Your task to perform on an android device: Go to Google Image 0: 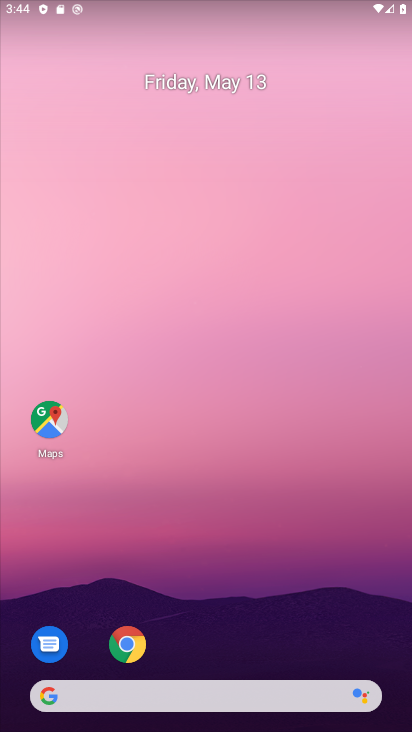
Step 0: drag from (290, 564) to (139, 0)
Your task to perform on an android device: Go to Google Image 1: 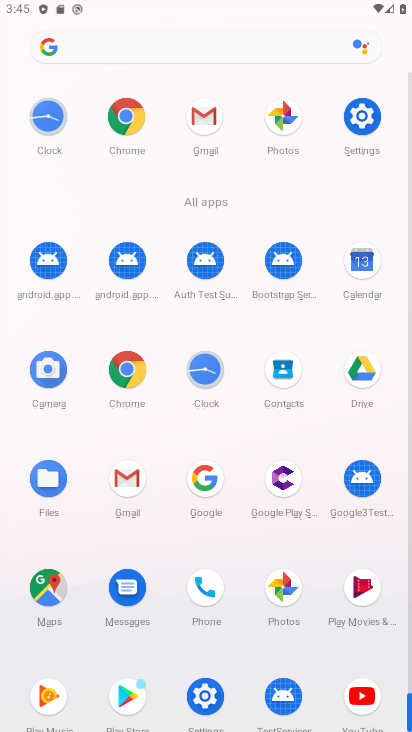
Step 1: click (197, 473)
Your task to perform on an android device: Go to Google Image 2: 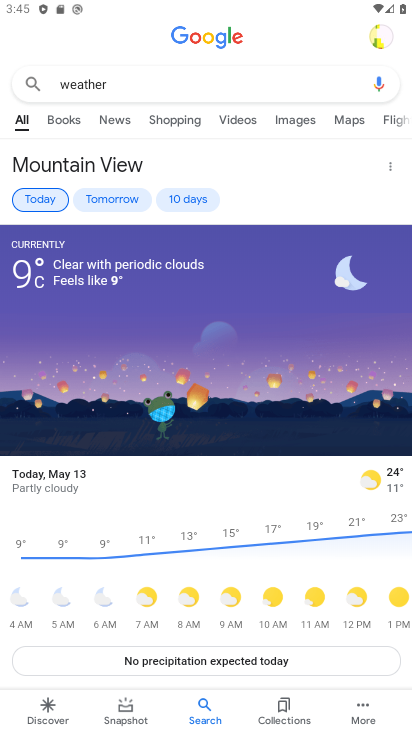
Step 2: task complete